Your task to perform on an android device: When is my next meeting? Image 0: 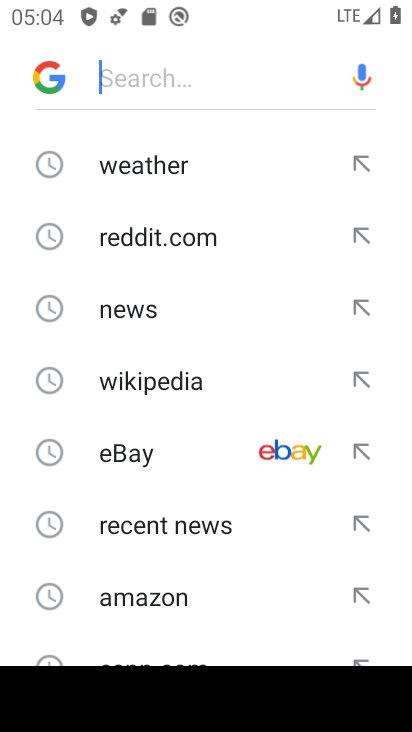
Step 0: press home button
Your task to perform on an android device: When is my next meeting? Image 1: 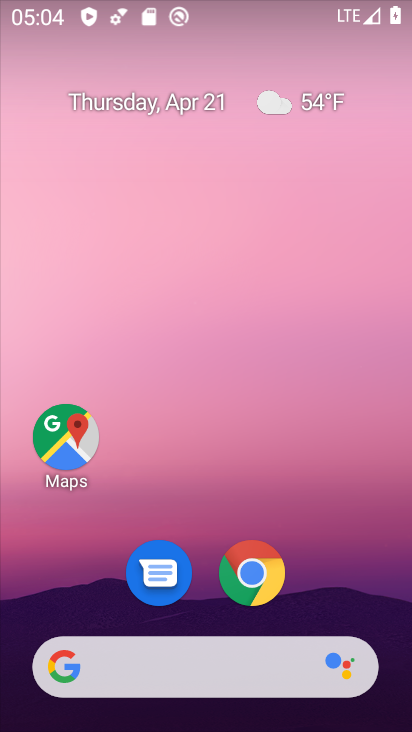
Step 1: drag from (394, 633) to (307, 223)
Your task to perform on an android device: When is my next meeting? Image 2: 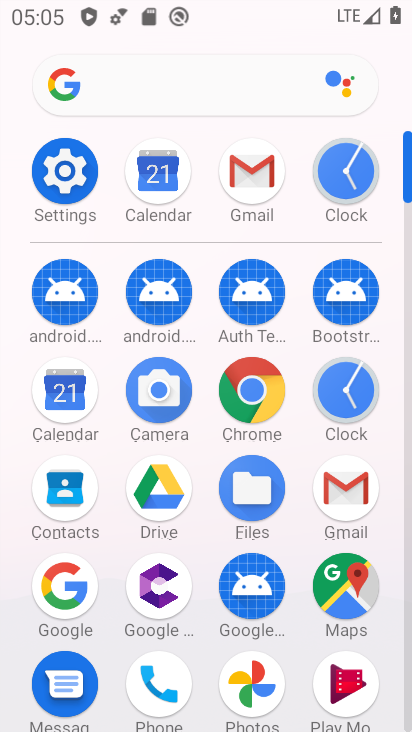
Step 2: click (405, 703)
Your task to perform on an android device: When is my next meeting? Image 3: 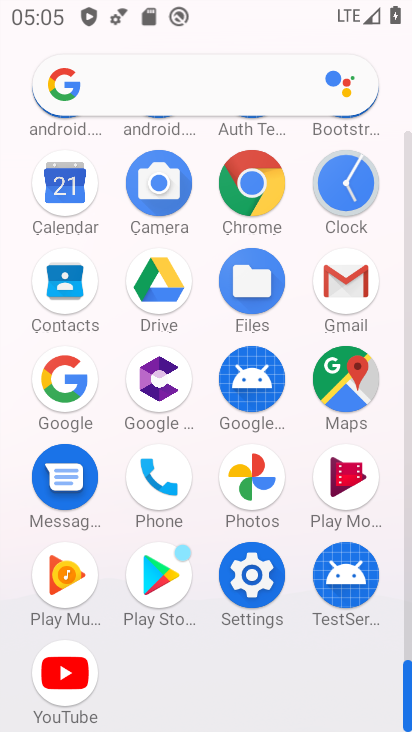
Step 3: click (58, 184)
Your task to perform on an android device: When is my next meeting? Image 4: 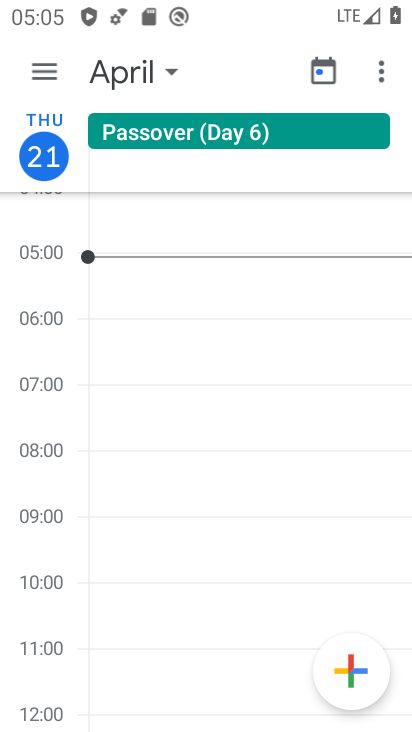
Step 4: click (43, 59)
Your task to perform on an android device: When is my next meeting? Image 5: 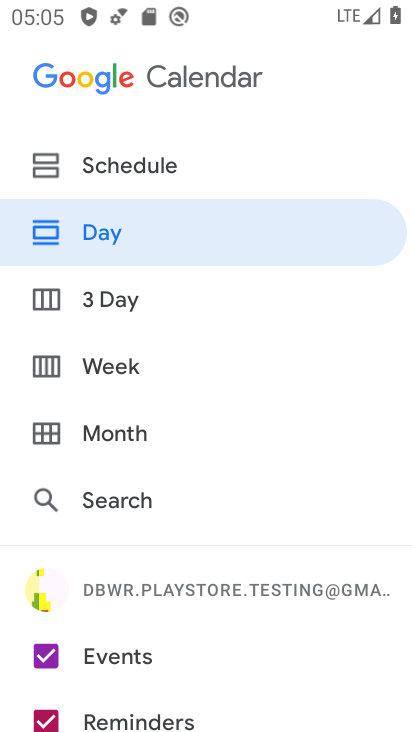
Step 5: click (138, 164)
Your task to perform on an android device: When is my next meeting? Image 6: 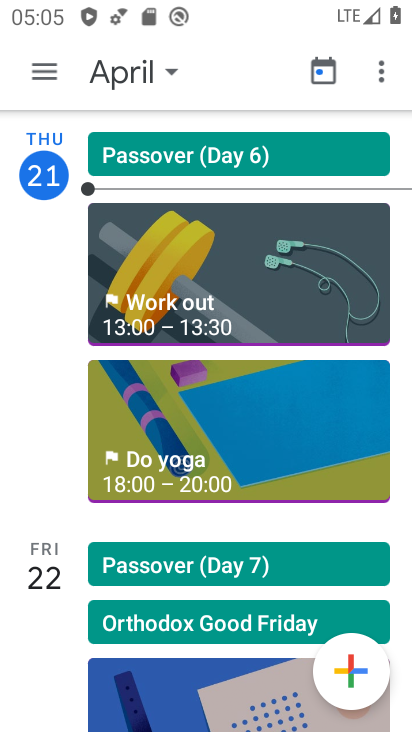
Step 6: task complete